Your task to perform on an android device: Open the web browser Image 0: 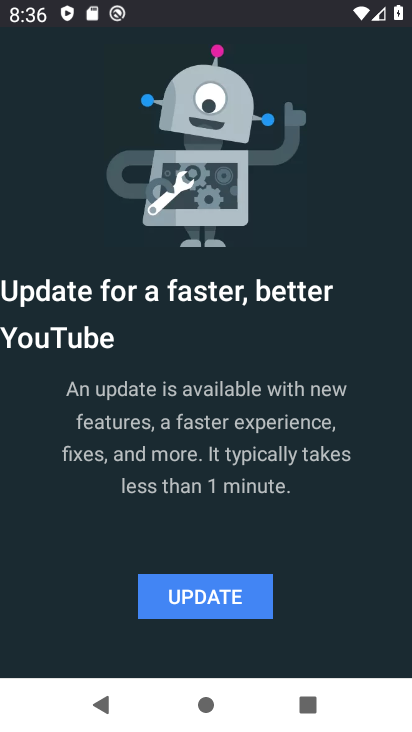
Step 0: press home button
Your task to perform on an android device: Open the web browser Image 1: 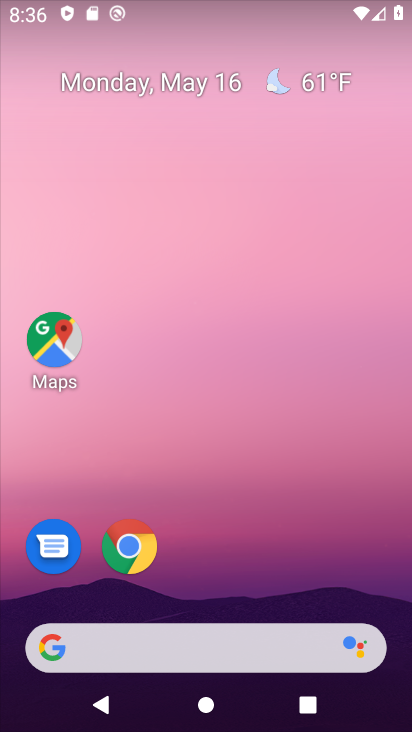
Step 1: click (147, 551)
Your task to perform on an android device: Open the web browser Image 2: 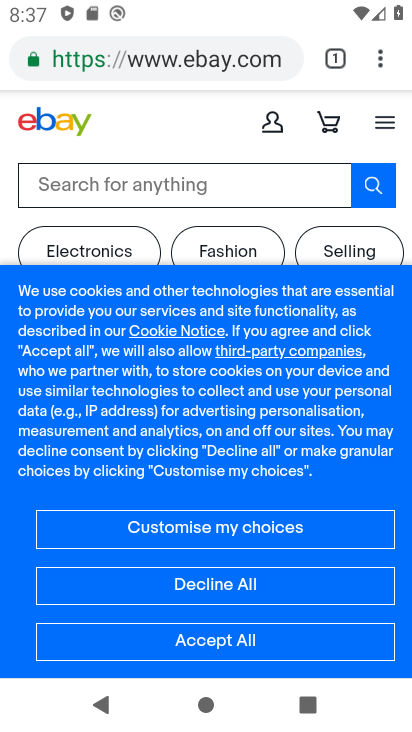
Step 2: task complete